Your task to perform on an android device: Open Google Image 0: 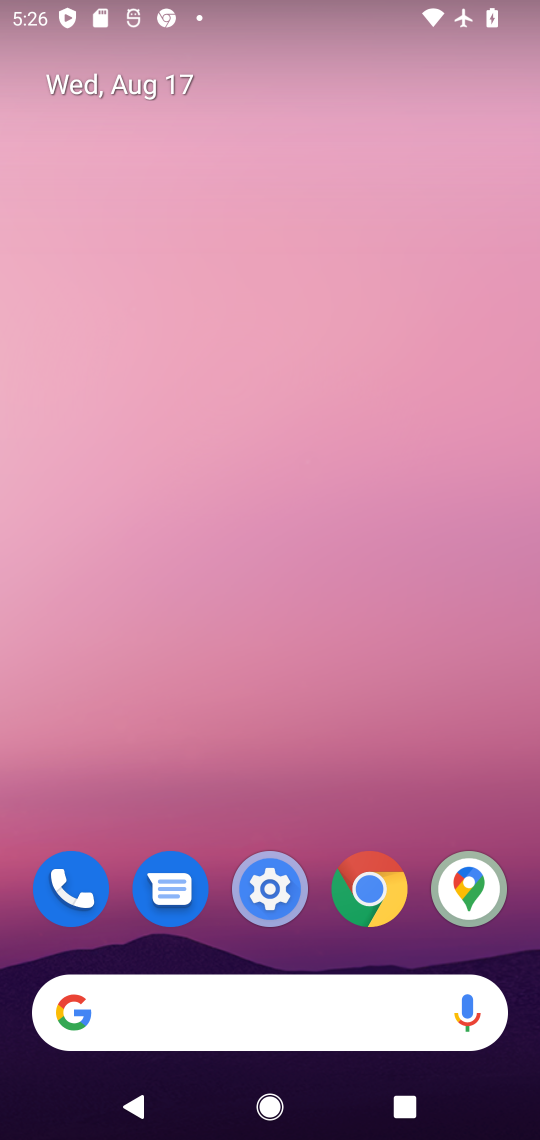
Step 0: click (75, 1001)
Your task to perform on an android device: Open Google Image 1: 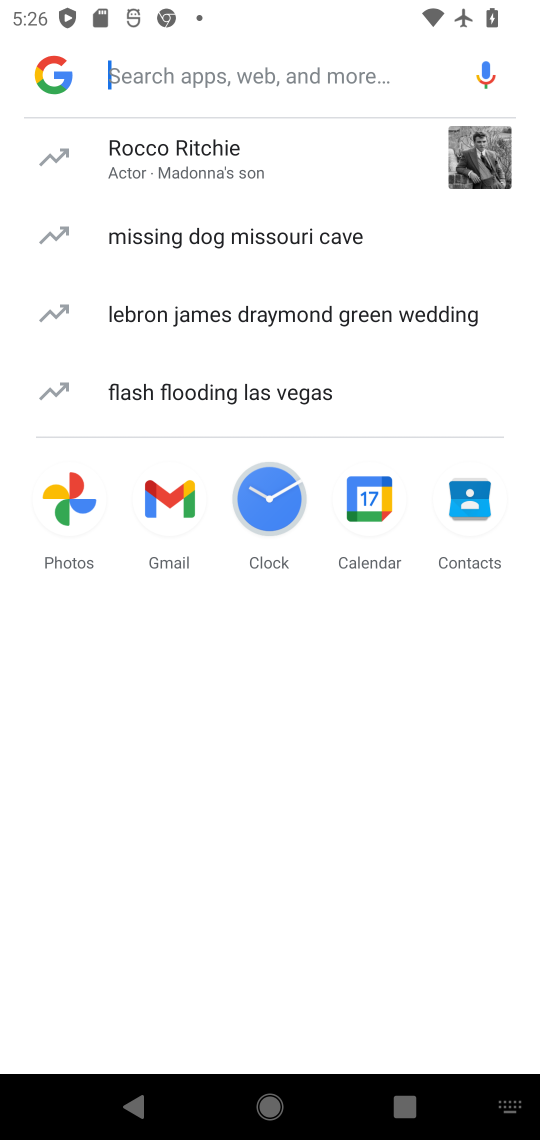
Step 1: click (51, 64)
Your task to perform on an android device: Open Google Image 2: 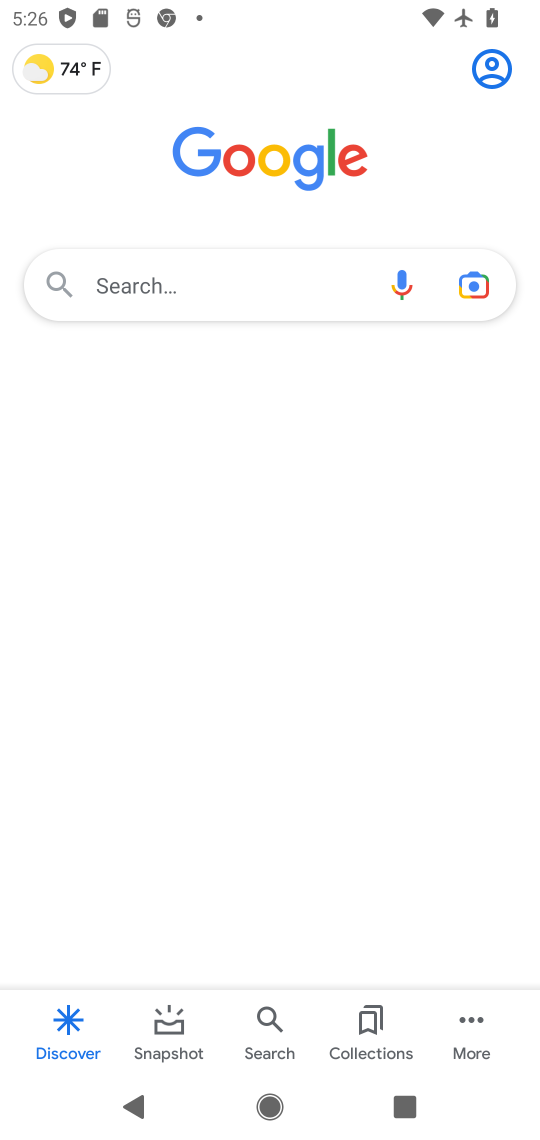
Step 2: task complete